Your task to perform on an android device: toggle pop-ups in chrome Image 0: 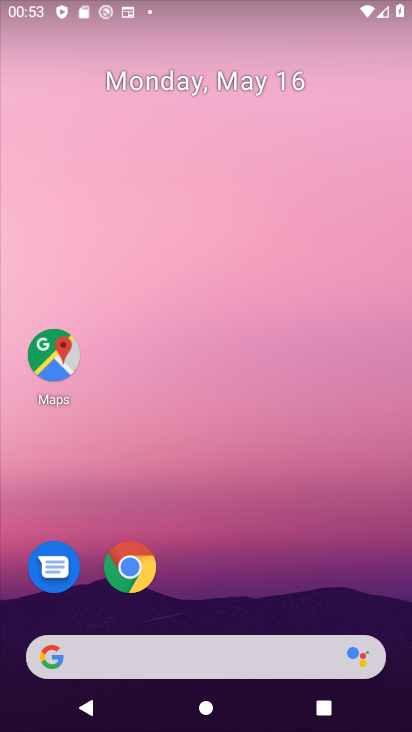
Step 0: drag from (233, 575) to (204, 129)
Your task to perform on an android device: toggle pop-ups in chrome Image 1: 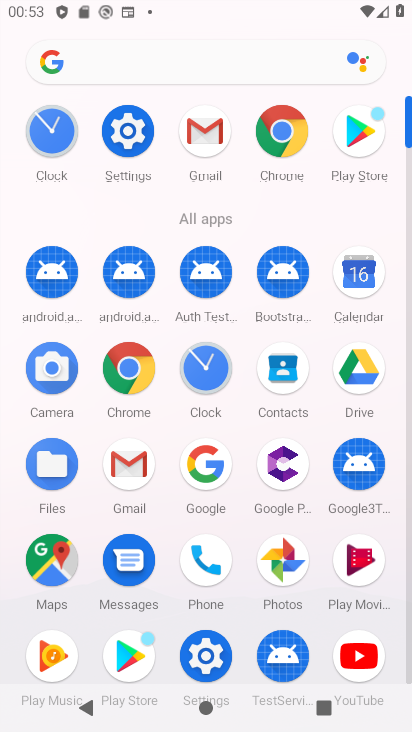
Step 1: click (289, 126)
Your task to perform on an android device: toggle pop-ups in chrome Image 2: 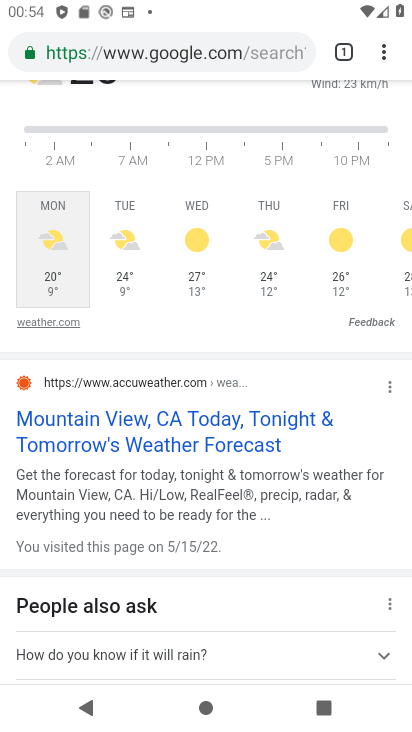
Step 2: click (390, 52)
Your task to perform on an android device: toggle pop-ups in chrome Image 3: 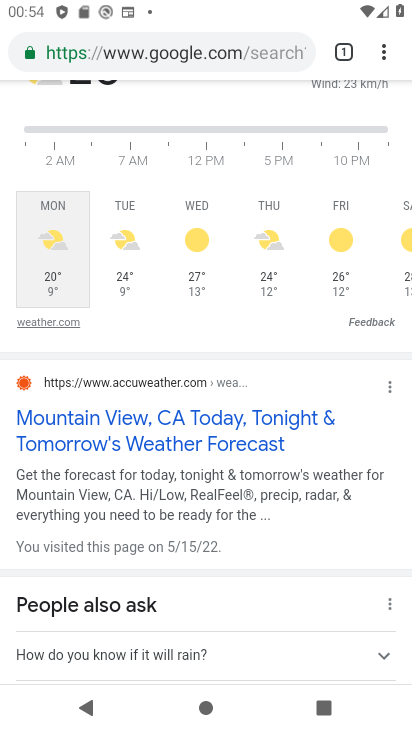
Step 3: click (377, 56)
Your task to perform on an android device: toggle pop-ups in chrome Image 4: 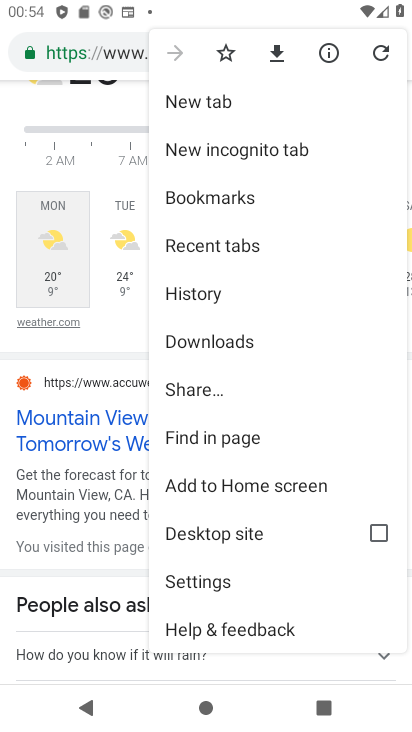
Step 4: click (239, 574)
Your task to perform on an android device: toggle pop-ups in chrome Image 5: 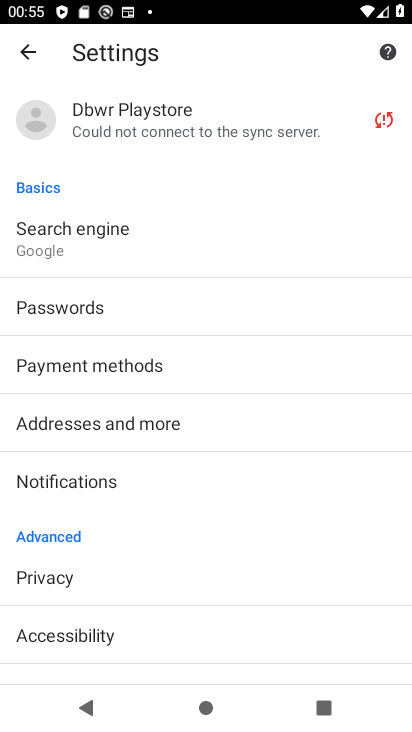
Step 5: drag from (256, 652) to (260, 291)
Your task to perform on an android device: toggle pop-ups in chrome Image 6: 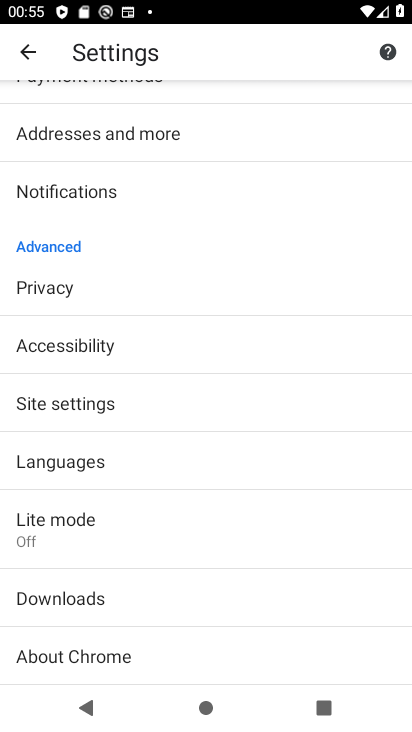
Step 6: click (262, 412)
Your task to perform on an android device: toggle pop-ups in chrome Image 7: 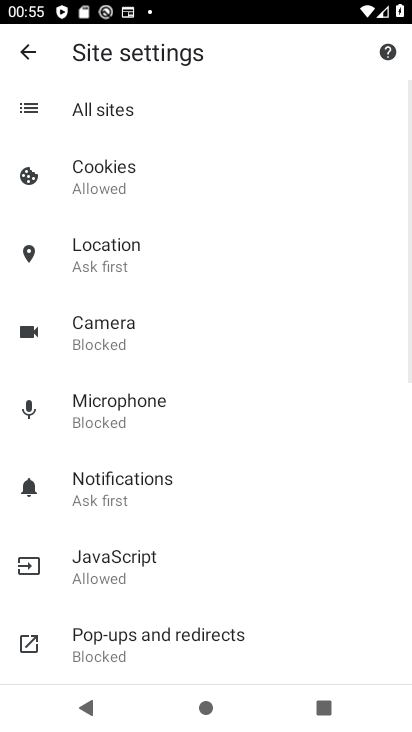
Step 7: click (284, 630)
Your task to perform on an android device: toggle pop-ups in chrome Image 8: 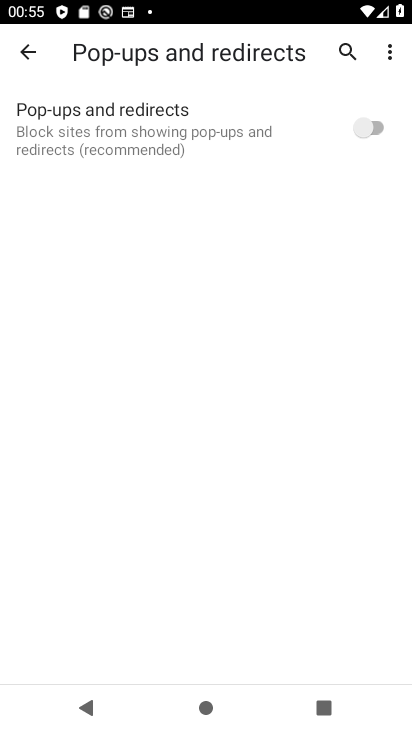
Step 8: click (379, 132)
Your task to perform on an android device: toggle pop-ups in chrome Image 9: 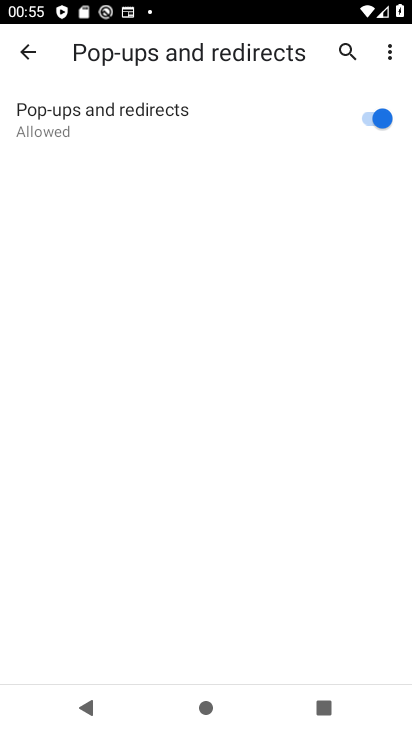
Step 9: task complete